Your task to perform on an android device: When is my next appointment? Image 0: 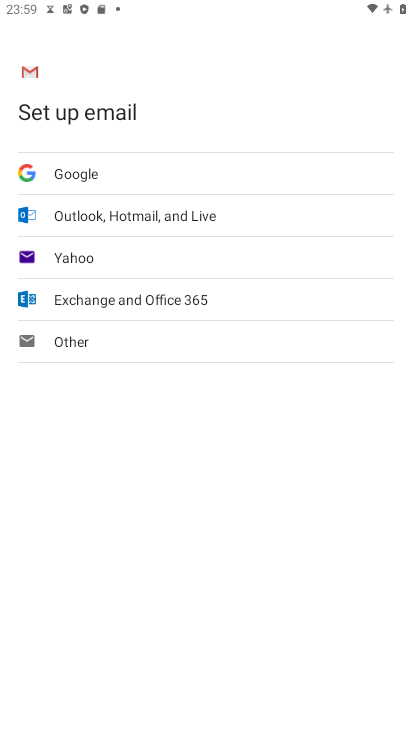
Step 0: press home button
Your task to perform on an android device: When is my next appointment? Image 1: 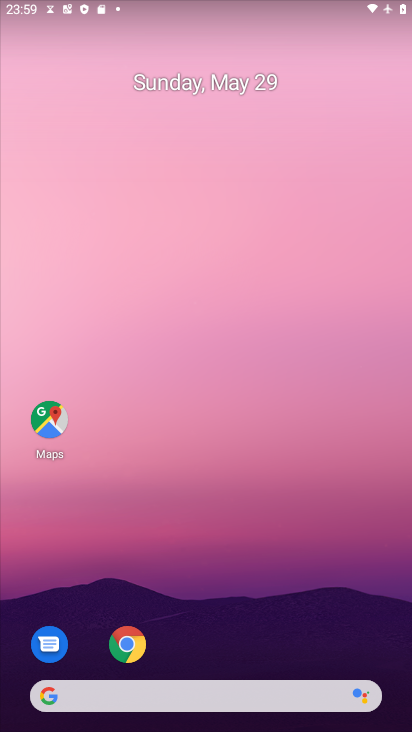
Step 1: drag from (195, 585) to (238, 227)
Your task to perform on an android device: When is my next appointment? Image 2: 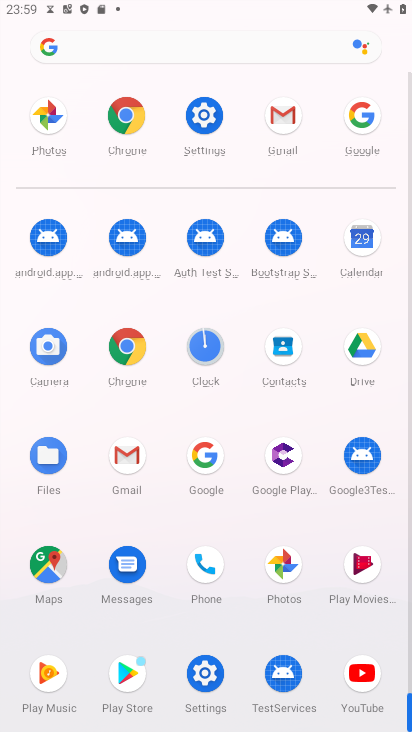
Step 2: click (360, 231)
Your task to perform on an android device: When is my next appointment? Image 3: 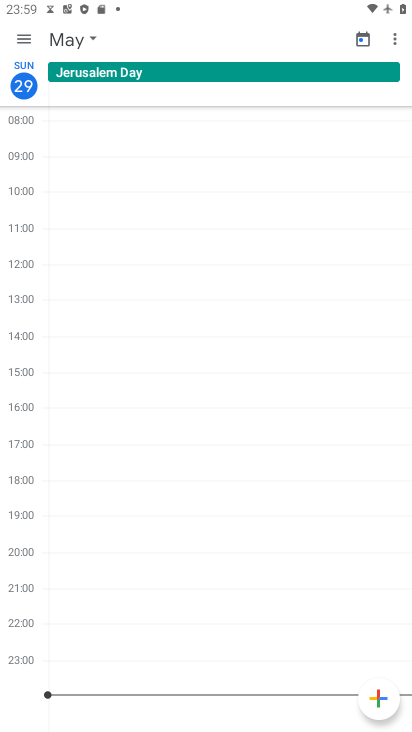
Step 3: click (25, 33)
Your task to perform on an android device: When is my next appointment? Image 4: 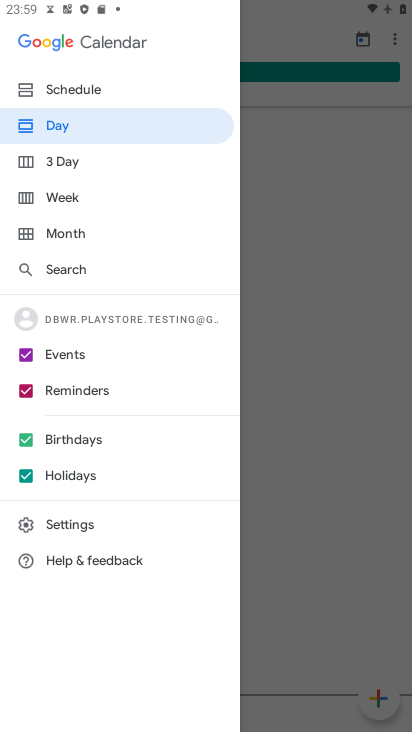
Step 4: click (87, 227)
Your task to perform on an android device: When is my next appointment? Image 5: 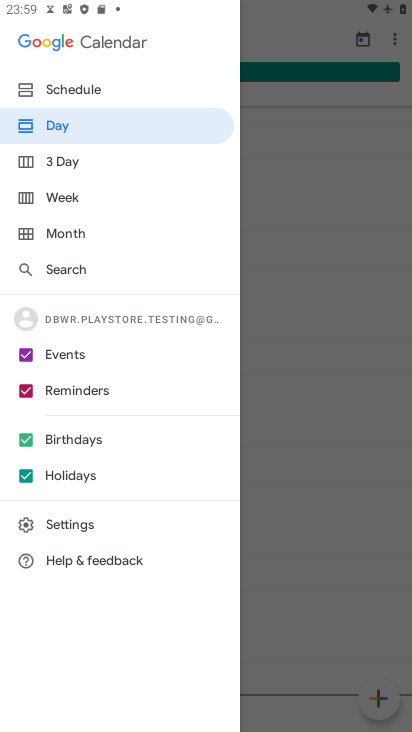
Step 5: click (120, 224)
Your task to perform on an android device: When is my next appointment? Image 6: 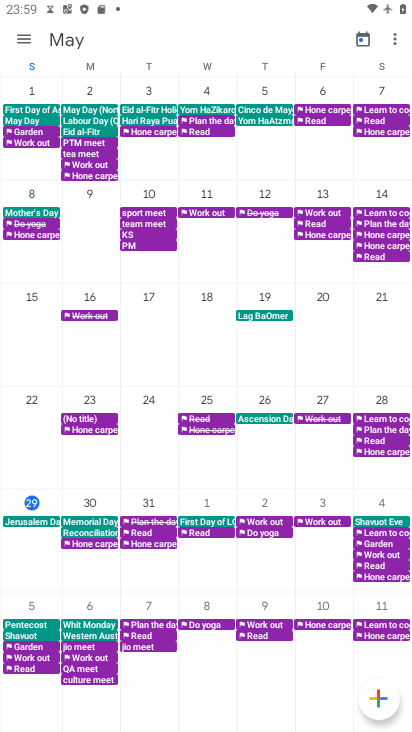
Step 6: click (82, 517)
Your task to perform on an android device: When is my next appointment? Image 7: 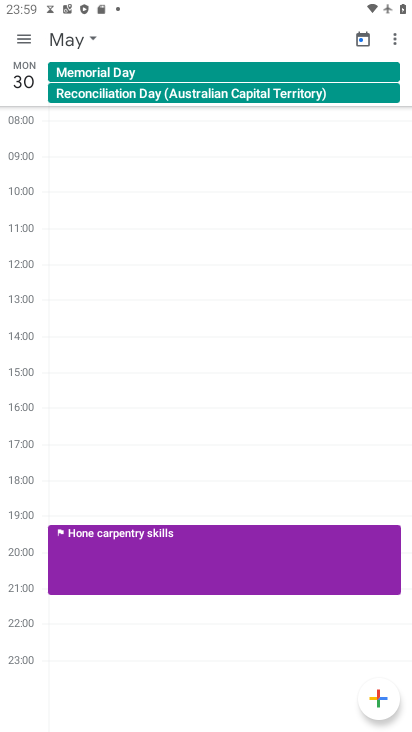
Step 7: task complete